Your task to perform on an android device: Turn off the flashlight Image 0: 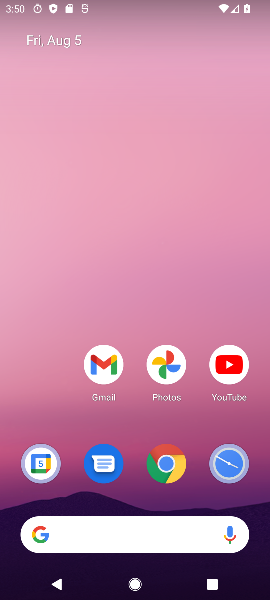
Step 0: drag from (164, 242) to (138, 187)
Your task to perform on an android device: Turn off the flashlight Image 1: 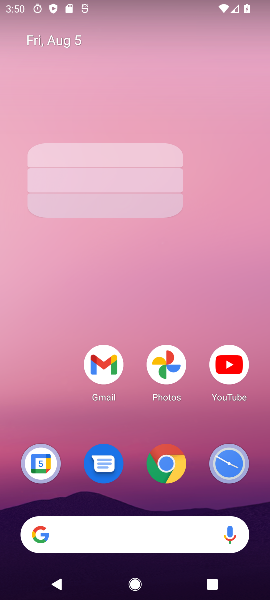
Step 1: drag from (133, 419) to (108, 239)
Your task to perform on an android device: Turn off the flashlight Image 2: 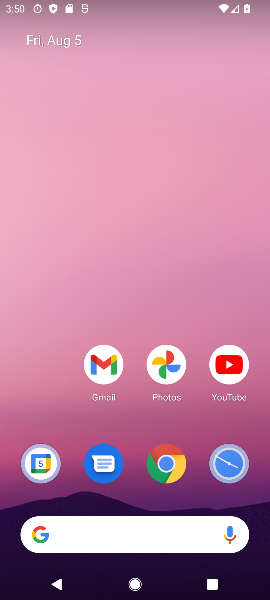
Step 2: drag from (164, 475) to (149, 230)
Your task to perform on an android device: Turn off the flashlight Image 3: 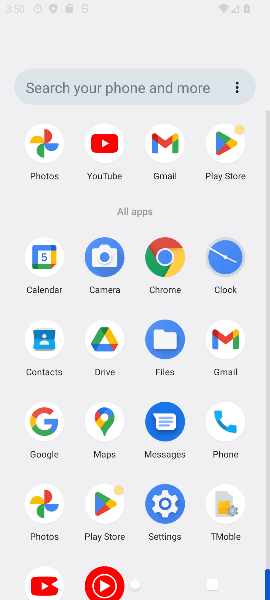
Step 3: drag from (132, 438) to (132, 230)
Your task to perform on an android device: Turn off the flashlight Image 4: 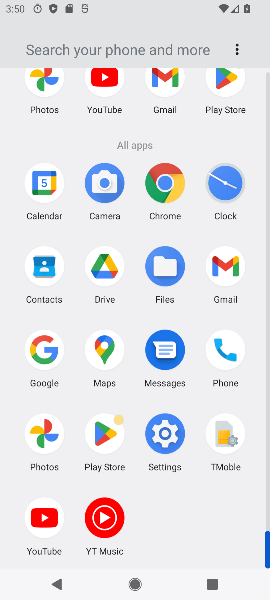
Step 4: drag from (159, 447) to (131, 223)
Your task to perform on an android device: Turn off the flashlight Image 5: 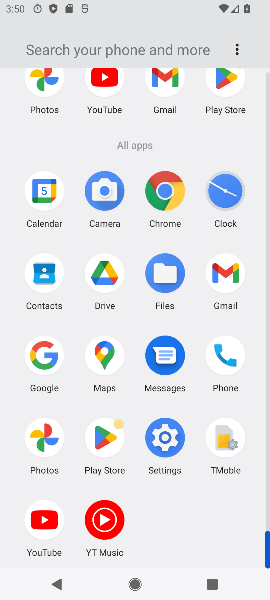
Step 5: click (166, 439)
Your task to perform on an android device: Turn off the flashlight Image 6: 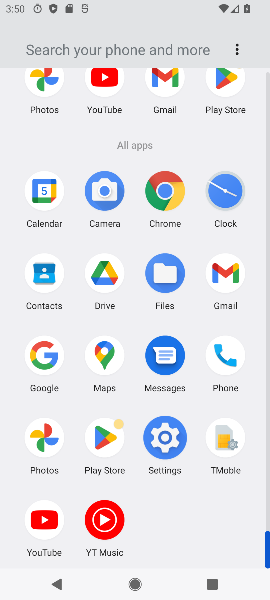
Step 6: click (166, 439)
Your task to perform on an android device: Turn off the flashlight Image 7: 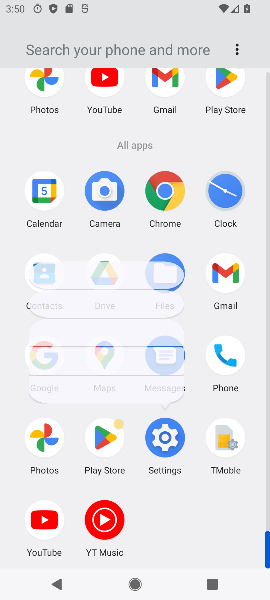
Step 7: click (166, 439)
Your task to perform on an android device: Turn off the flashlight Image 8: 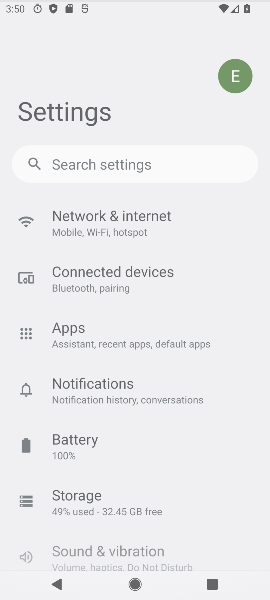
Step 8: click (168, 439)
Your task to perform on an android device: Turn off the flashlight Image 9: 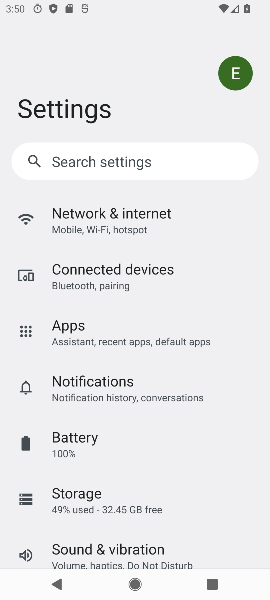
Step 9: click (168, 439)
Your task to perform on an android device: Turn off the flashlight Image 10: 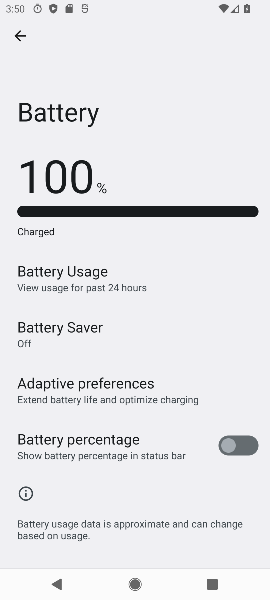
Step 10: task complete